Your task to perform on an android device: allow cookies in the chrome app Image 0: 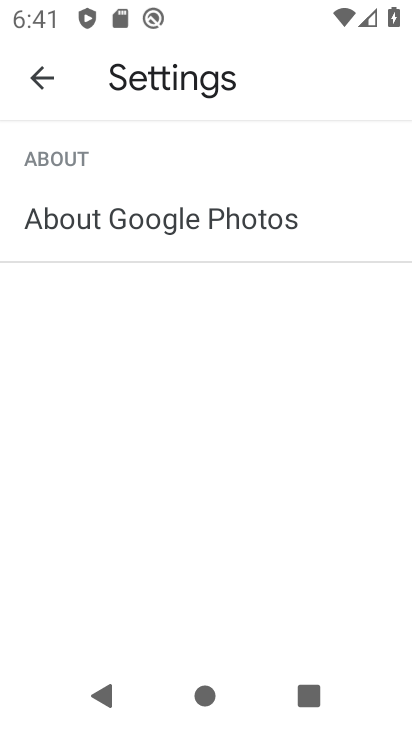
Step 0: press home button
Your task to perform on an android device: allow cookies in the chrome app Image 1: 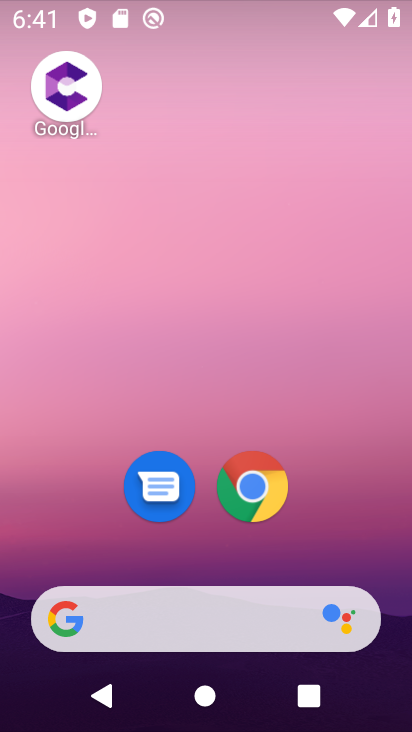
Step 1: click (377, 643)
Your task to perform on an android device: allow cookies in the chrome app Image 2: 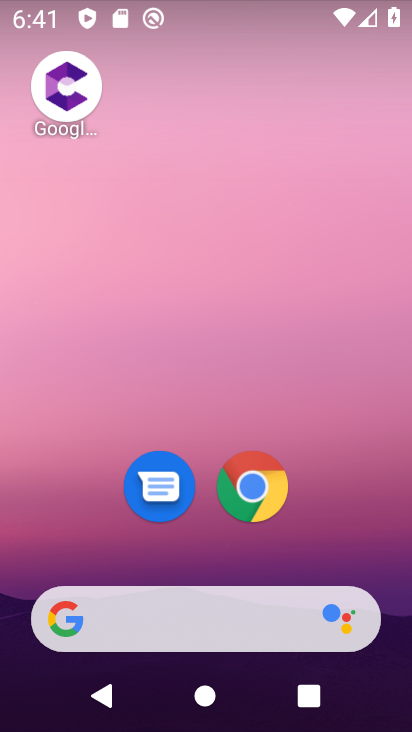
Step 2: click (255, 487)
Your task to perform on an android device: allow cookies in the chrome app Image 3: 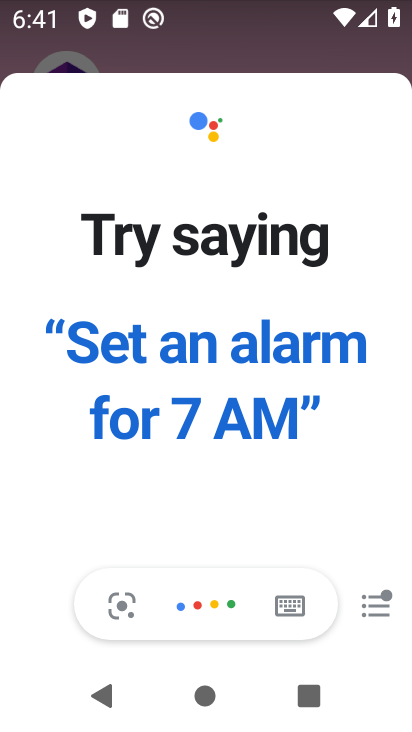
Step 3: press home button
Your task to perform on an android device: allow cookies in the chrome app Image 4: 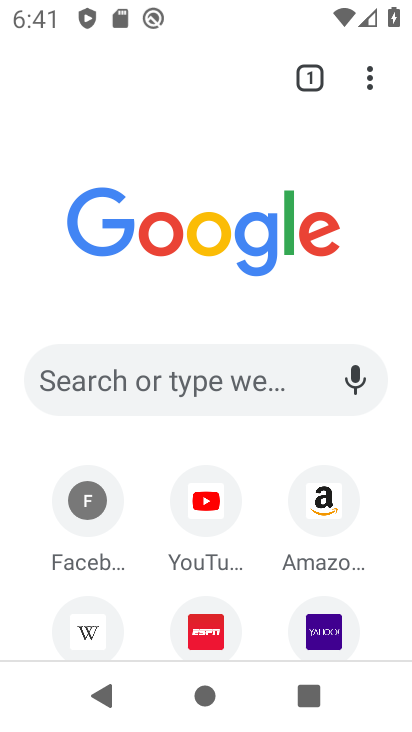
Step 4: click (365, 76)
Your task to perform on an android device: allow cookies in the chrome app Image 5: 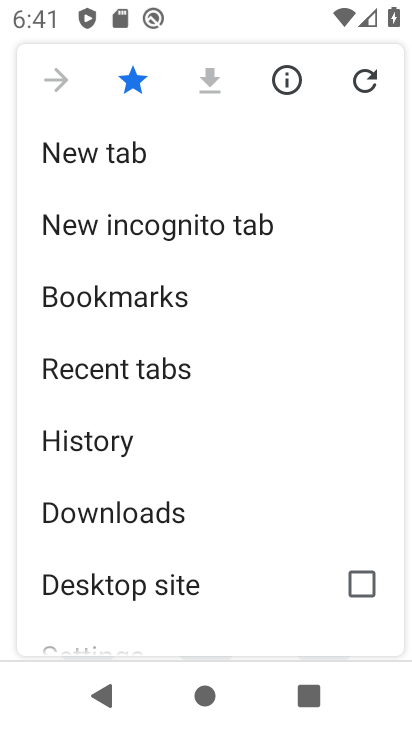
Step 5: drag from (234, 519) to (218, 116)
Your task to perform on an android device: allow cookies in the chrome app Image 6: 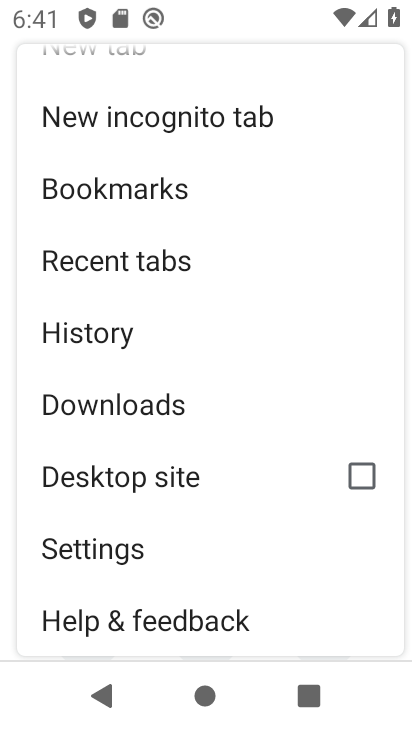
Step 6: click (100, 553)
Your task to perform on an android device: allow cookies in the chrome app Image 7: 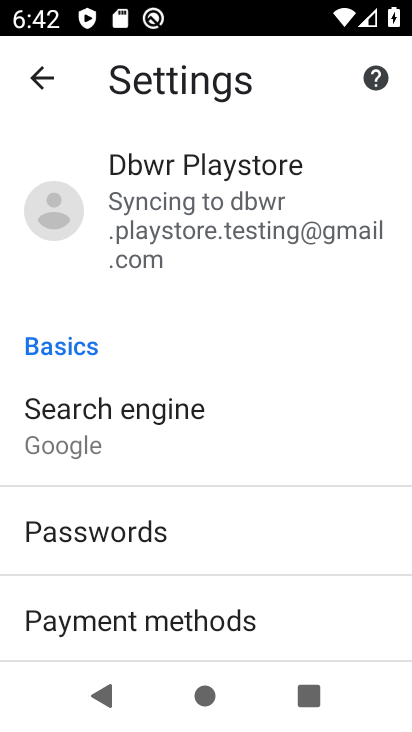
Step 7: drag from (295, 500) to (288, 41)
Your task to perform on an android device: allow cookies in the chrome app Image 8: 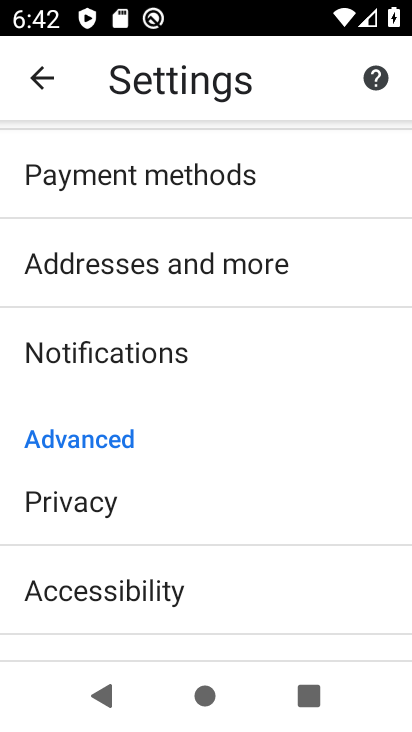
Step 8: drag from (291, 485) to (276, 188)
Your task to perform on an android device: allow cookies in the chrome app Image 9: 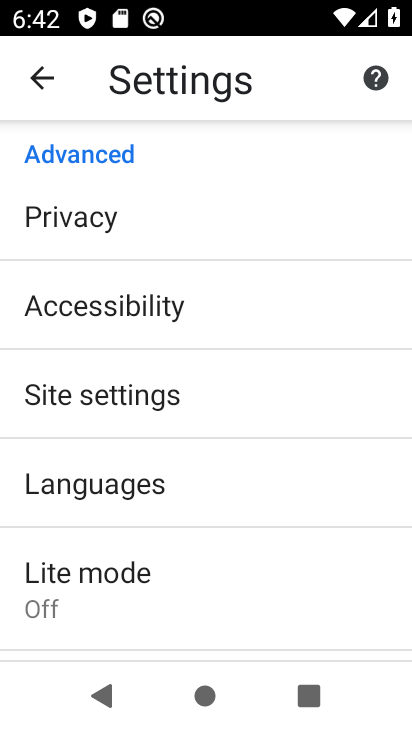
Step 9: click (119, 395)
Your task to perform on an android device: allow cookies in the chrome app Image 10: 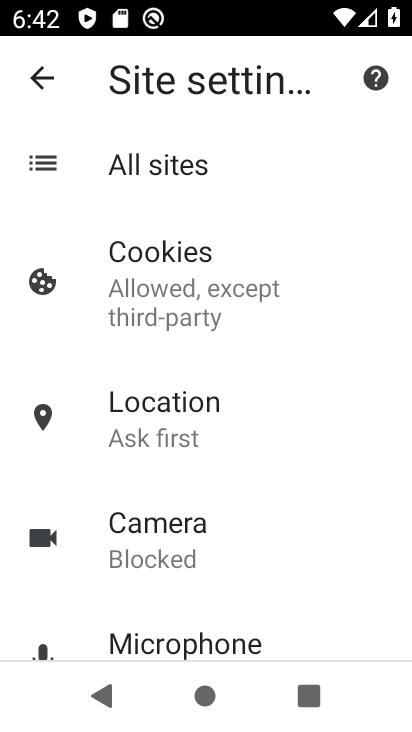
Step 10: click (189, 249)
Your task to perform on an android device: allow cookies in the chrome app Image 11: 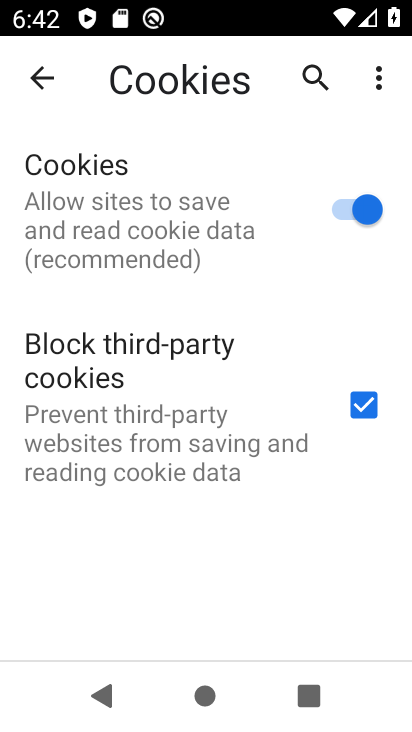
Step 11: task complete